Your task to perform on an android device: Open display settings Image 0: 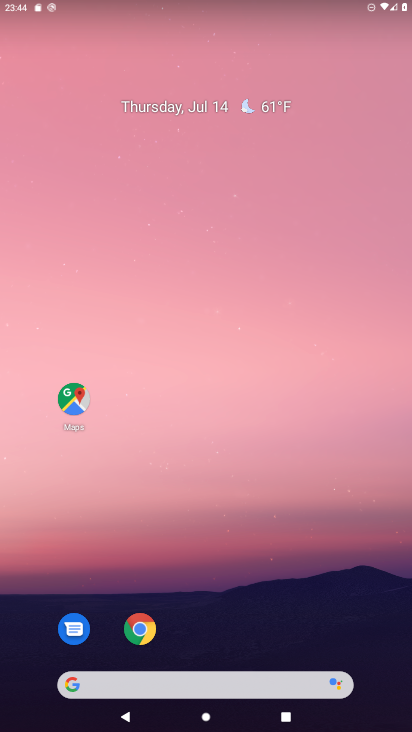
Step 0: drag from (207, 641) to (220, 86)
Your task to perform on an android device: Open display settings Image 1: 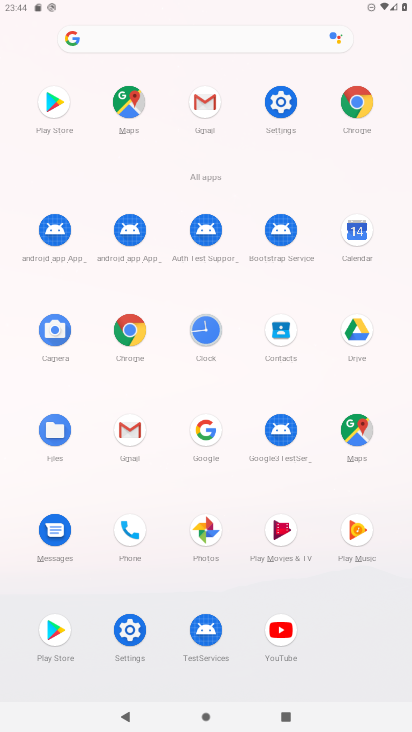
Step 1: click (273, 93)
Your task to perform on an android device: Open display settings Image 2: 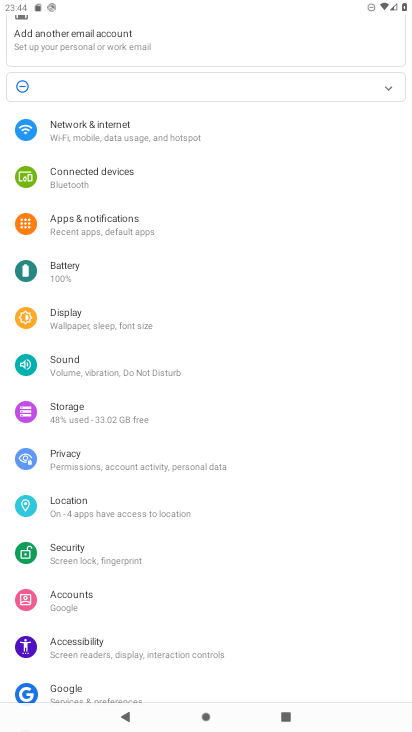
Step 2: click (168, 330)
Your task to perform on an android device: Open display settings Image 3: 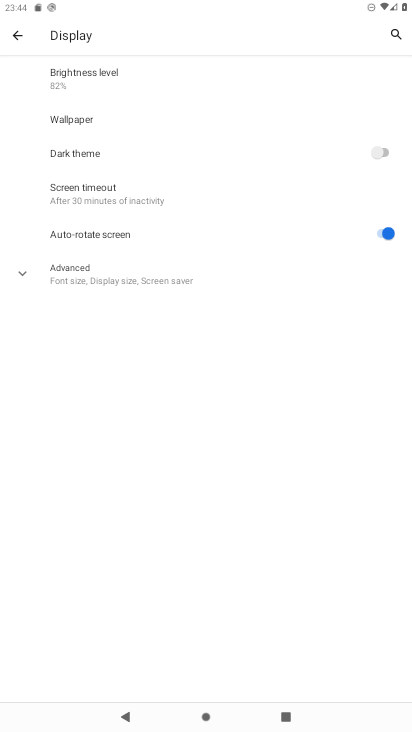
Step 3: task complete